Your task to perform on an android device: Go to wifi settings Image 0: 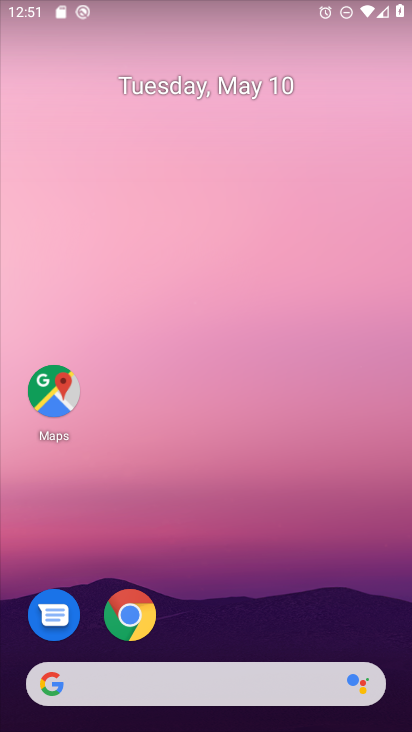
Step 0: drag from (339, 704) to (316, 245)
Your task to perform on an android device: Go to wifi settings Image 1: 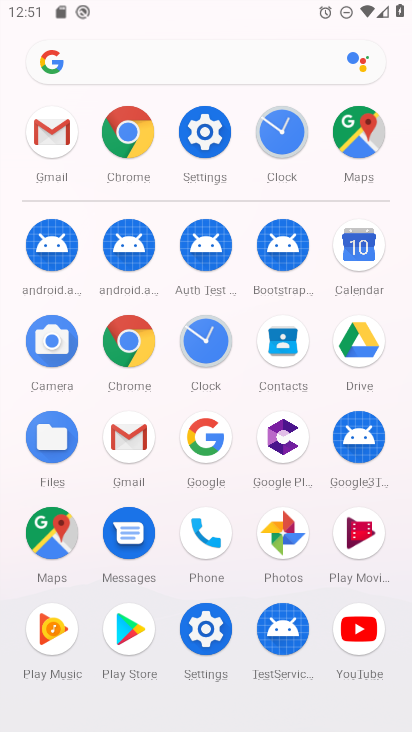
Step 1: click (175, 121)
Your task to perform on an android device: Go to wifi settings Image 2: 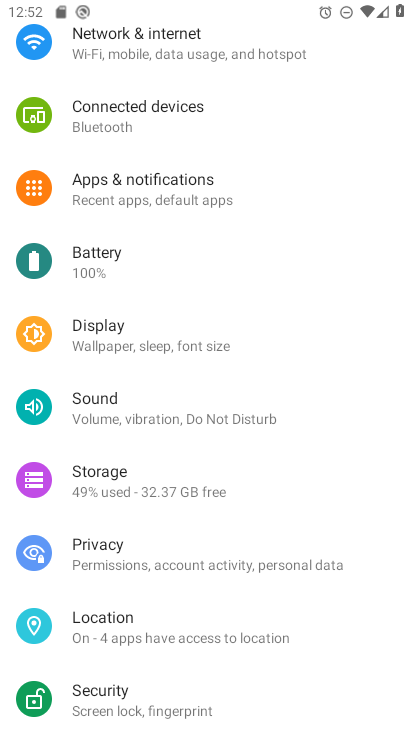
Step 2: click (138, 58)
Your task to perform on an android device: Go to wifi settings Image 3: 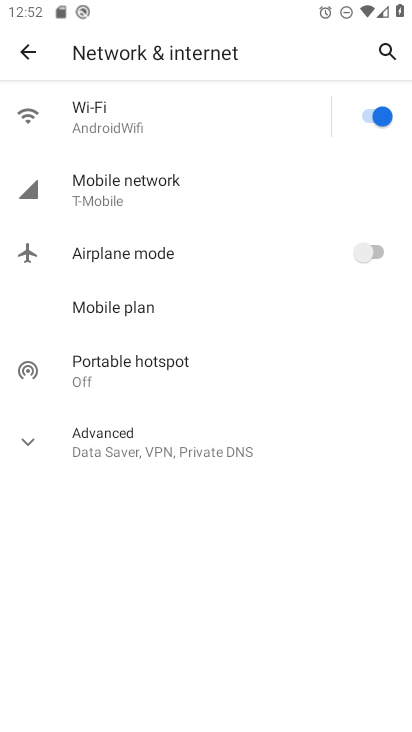
Step 3: click (96, 130)
Your task to perform on an android device: Go to wifi settings Image 4: 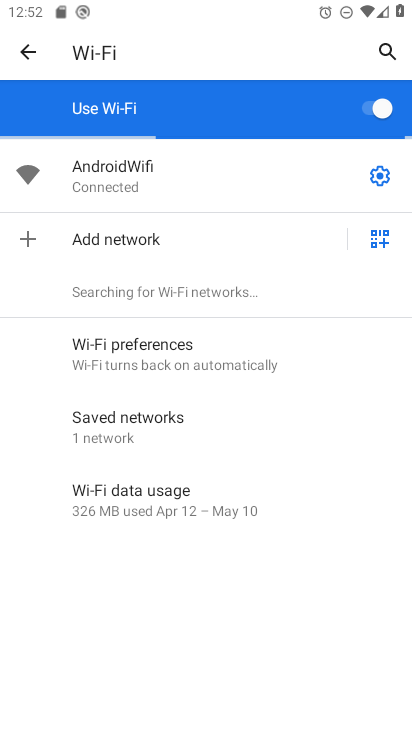
Step 4: task complete